Your task to perform on an android device: turn pop-ups on in chrome Image 0: 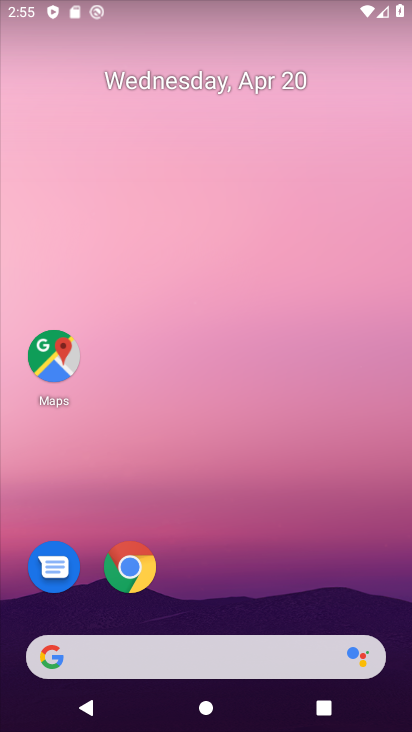
Step 0: click (136, 571)
Your task to perform on an android device: turn pop-ups on in chrome Image 1: 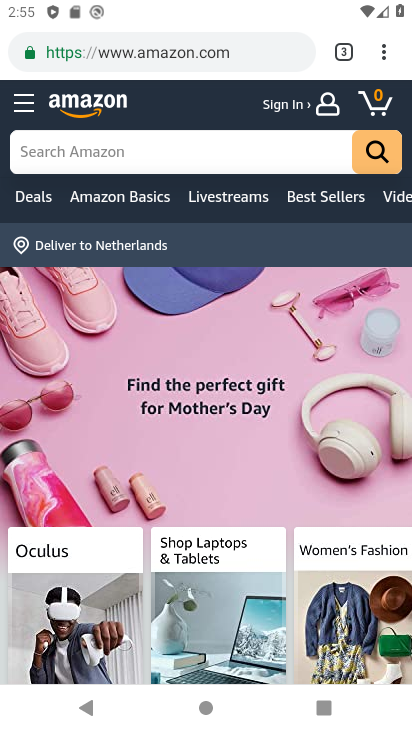
Step 1: click (387, 57)
Your task to perform on an android device: turn pop-ups on in chrome Image 2: 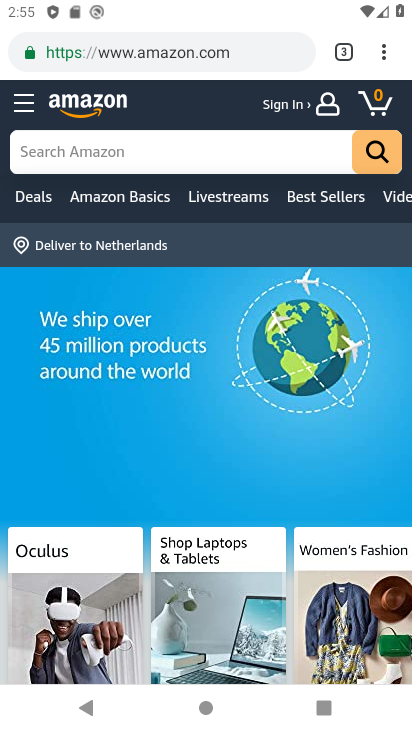
Step 2: click (383, 56)
Your task to perform on an android device: turn pop-ups on in chrome Image 3: 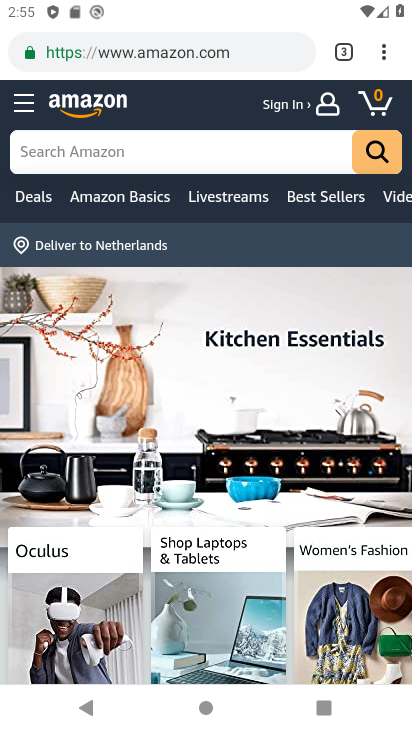
Step 3: click (373, 49)
Your task to perform on an android device: turn pop-ups on in chrome Image 4: 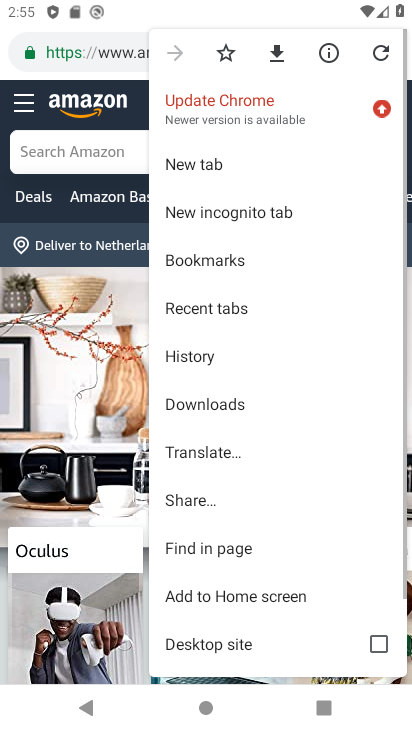
Step 4: drag from (220, 603) to (285, 315)
Your task to perform on an android device: turn pop-ups on in chrome Image 5: 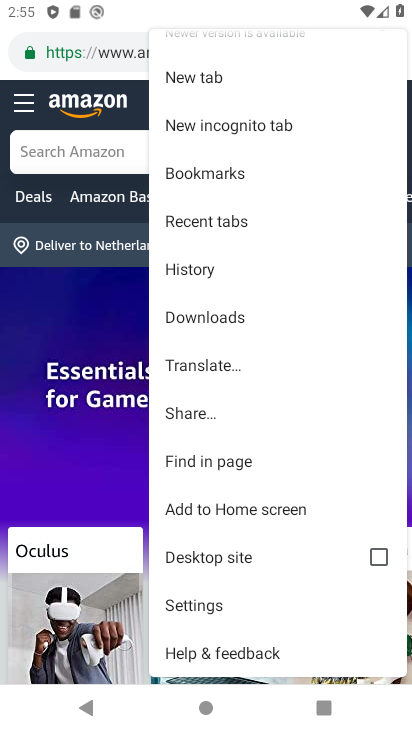
Step 5: click (206, 604)
Your task to perform on an android device: turn pop-ups on in chrome Image 6: 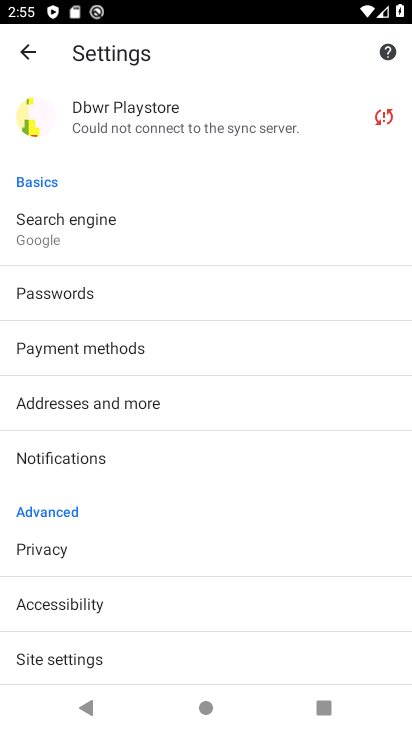
Step 6: click (89, 662)
Your task to perform on an android device: turn pop-ups on in chrome Image 7: 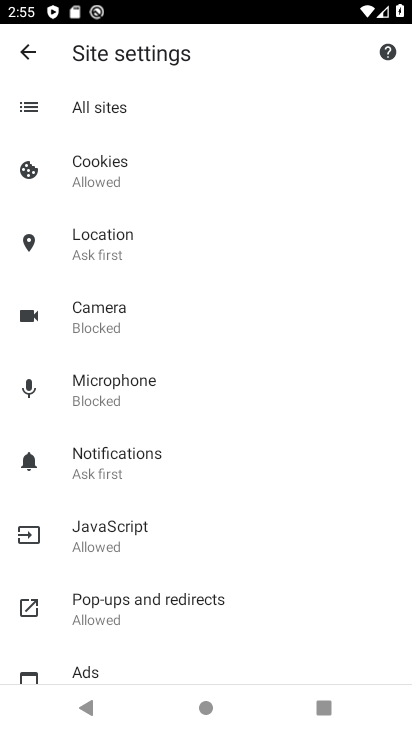
Step 7: click (155, 607)
Your task to perform on an android device: turn pop-ups on in chrome Image 8: 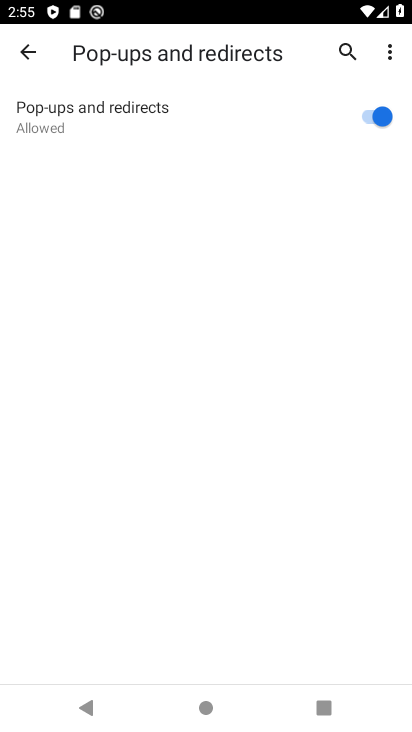
Step 8: task complete